Your task to perform on an android device: move an email to a new category in the gmail app Image 0: 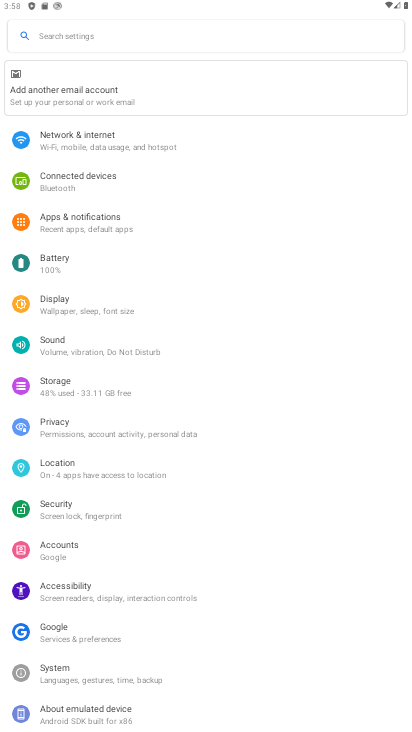
Step 0: press home button
Your task to perform on an android device: move an email to a new category in the gmail app Image 1: 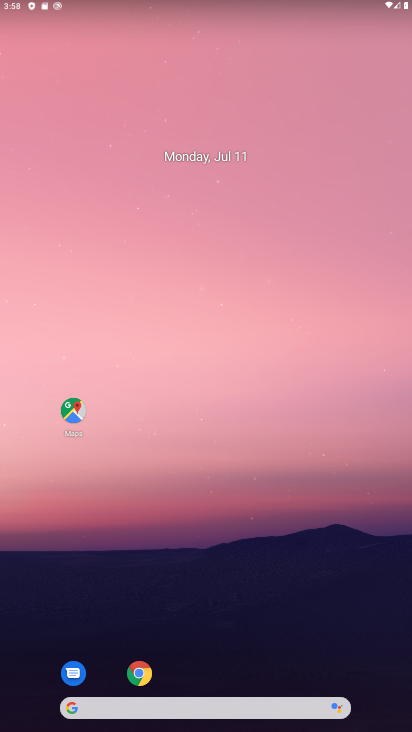
Step 1: drag from (317, 658) to (164, 76)
Your task to perform on an android device: move an email to a new category in the gmail app Image 2: 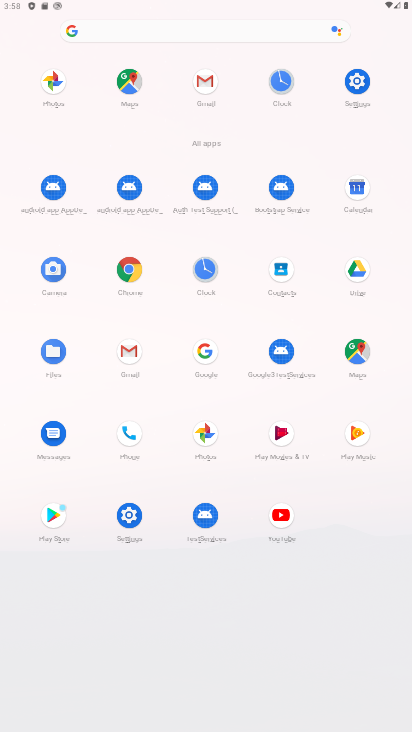
Step 2: click (208, 87)
Your task to perform on an android device: move an email to a new category in the gmail app Image 3: 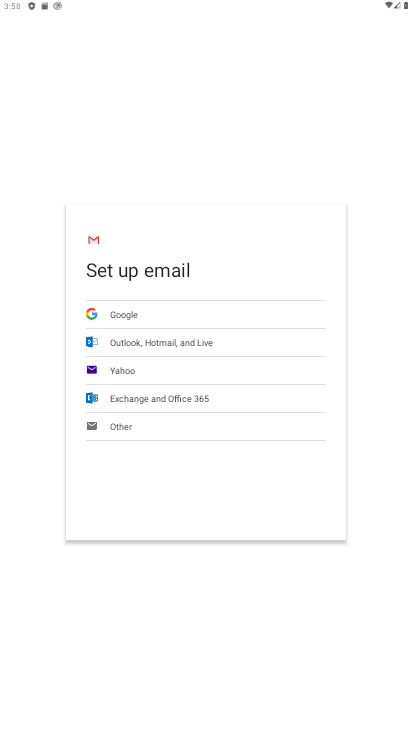
Step 3: press back button
Your task to perform on an android device: move an email to a new category in the gmail app Image 4: 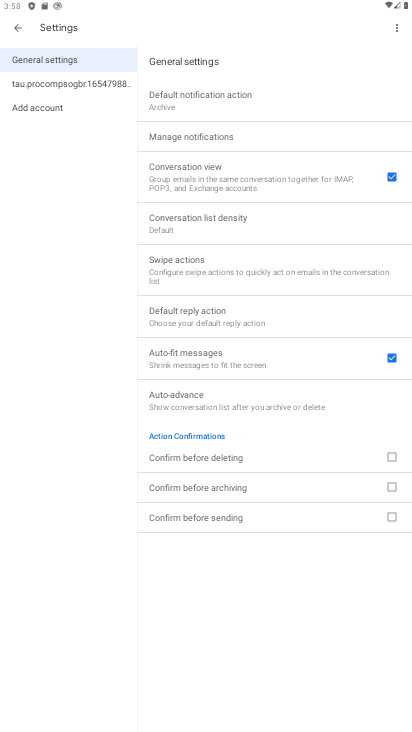
Step 4: click (12, 31)
Your task to perform on an android device: move an email to a new category in the gmail app Image 5: 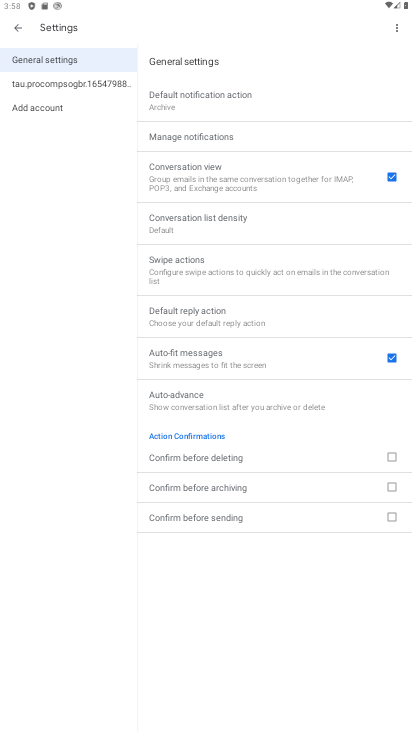
Step 5: click (16, 27)
Your task to perform on an android device: move an email to a new category in the gmail app Image 6: 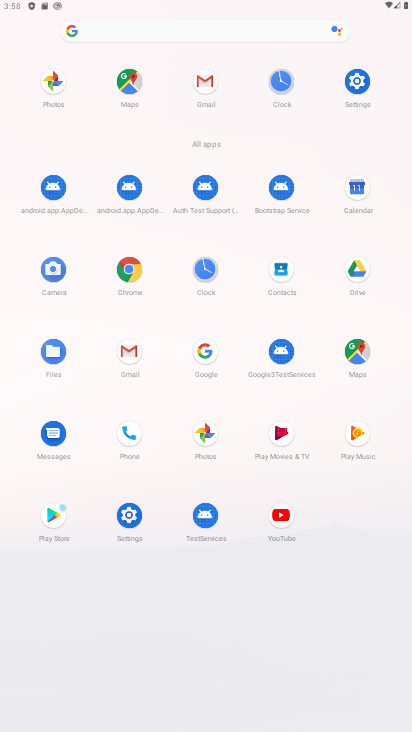
Step 6: click (208, 72)
Your task to perform on an android device: move an email to a new category in the gmail app Image 7: 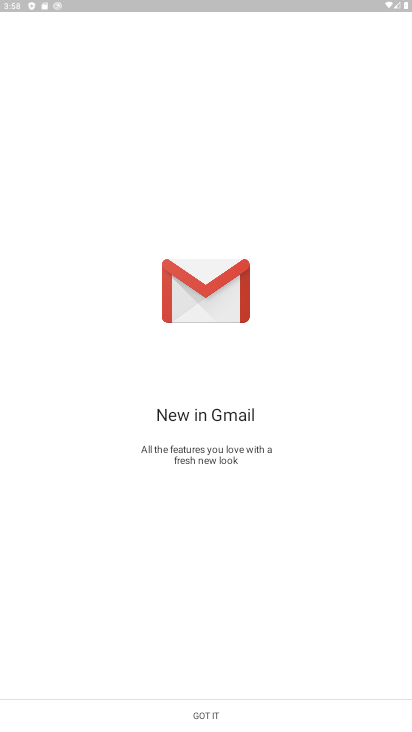
Step 7: click (208, 710)
Your task to perform on an android device: move an email to a new category in the gmail app Image 8: 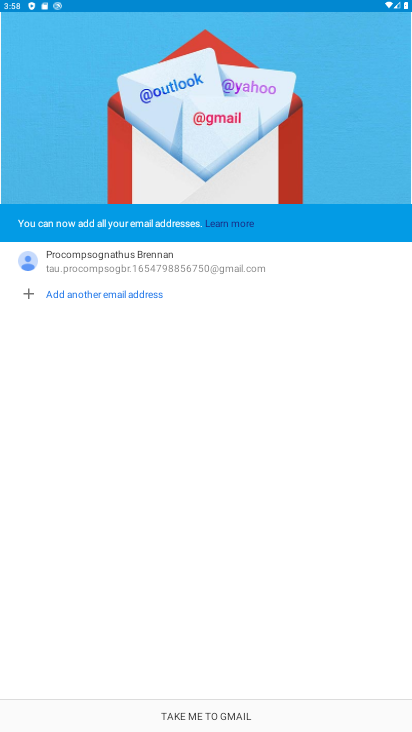
Step 8: click (217, 702)
Your task to perform on an android device: move an email to a new category in the gmail app Image 9: 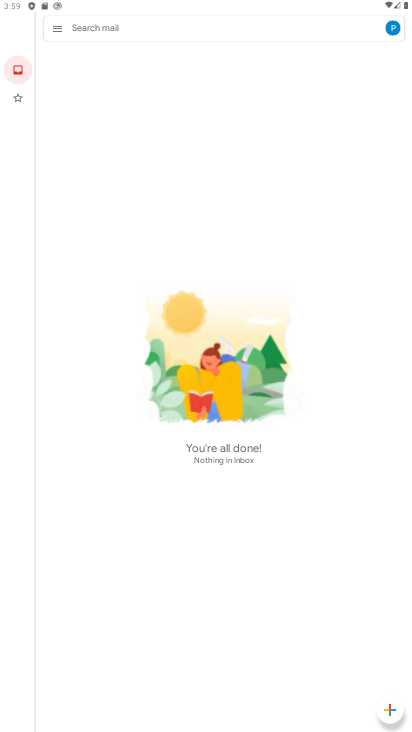
Step 9: click (56, 29)
Your task to perform on an android device: move an email to a new category in the gmail app Image 10: 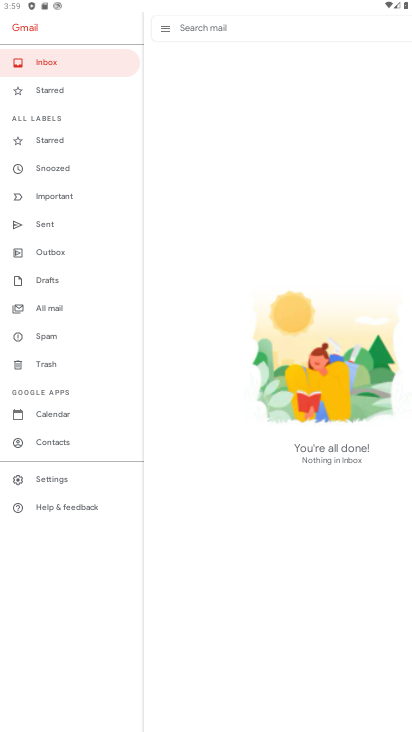
Step 10: click (40, 314)
Your task to perform on an android device: move an email to a new category in the gmail app Image 11: 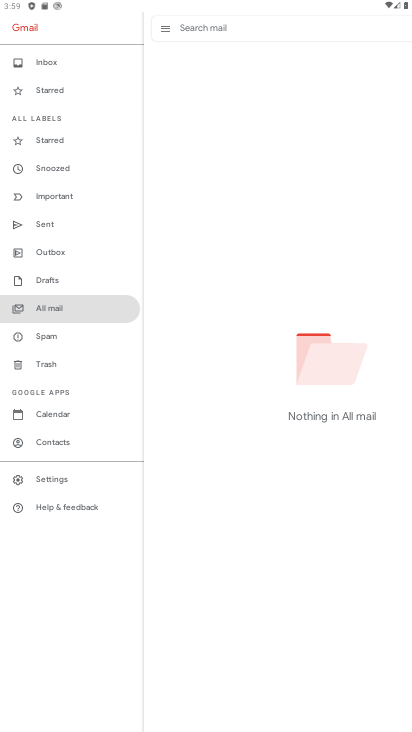
Step 11: task complete